Your task to perform on an android device: Open Google Chrome and click the shortcut for Amazon.com Image 0: 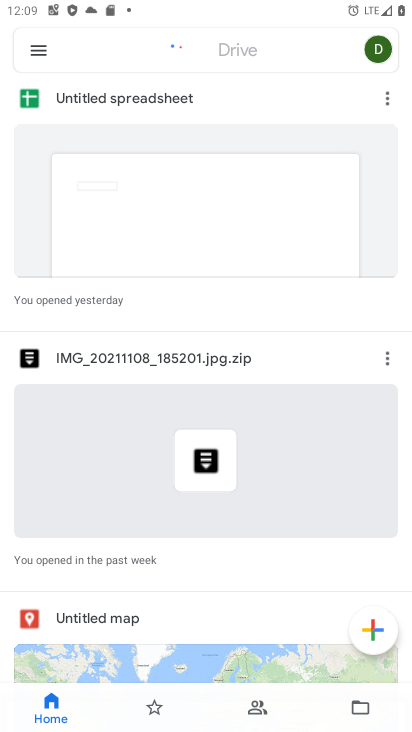
Step 0: press home button
Your task to perform on an android device: Open Google Chrome and click the shortcut for Amazon.com Image 1: 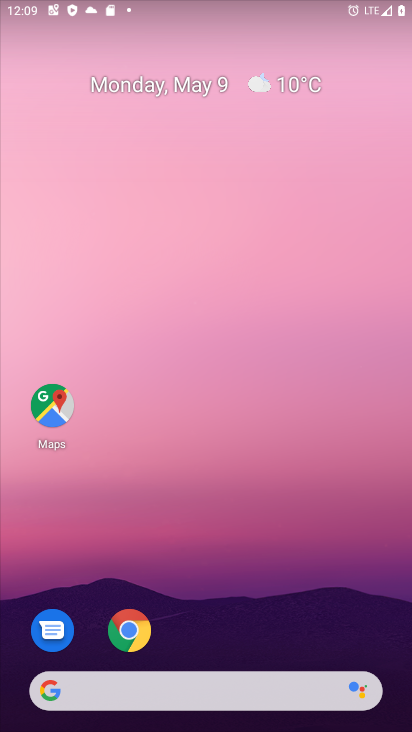
Step 1: drag from (327, 604) to (238, 3)
Your task to perform on an android device: Open Google Chrome and click the shortcut for Amazon.com Image 2: 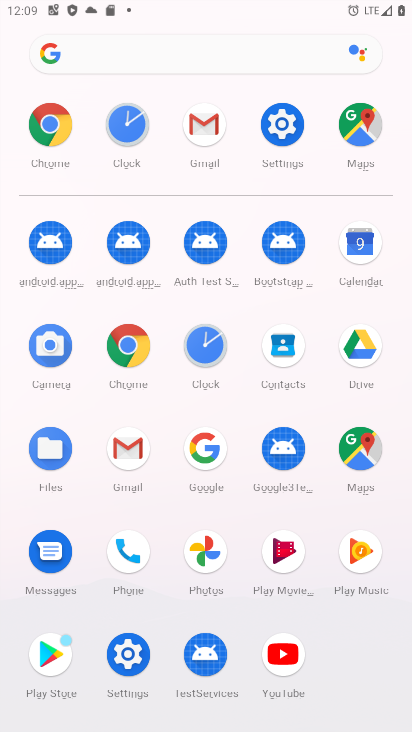
Step 2: click (53, 145)
Your task to perform on an android device: Open Google Chrome and click the shortcut for Amazon.com Image 3: 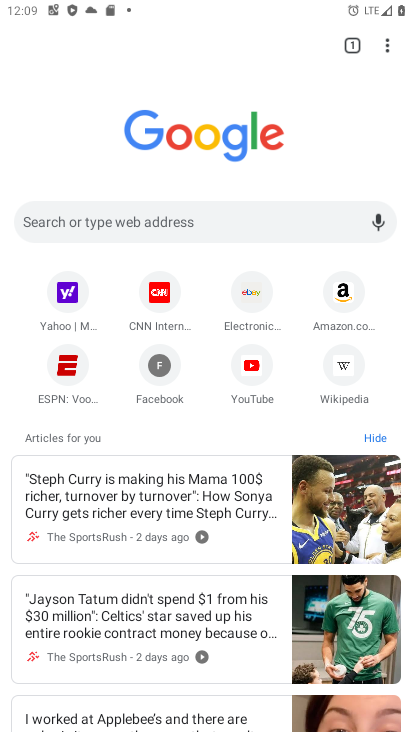
Step 3: click (358, 303)
Your task to perform on an android device: Open Google Chrome and click the shortcut for Amazon.com Image 4: 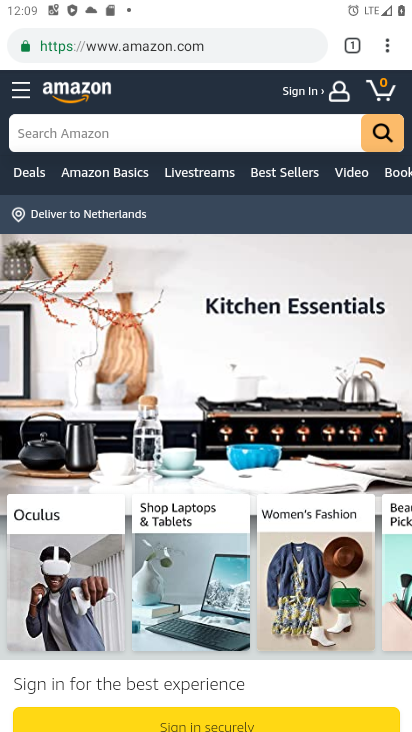
Step 4: task complete